Your task to perform on an android device: turn off improve location accuracy Image 0: 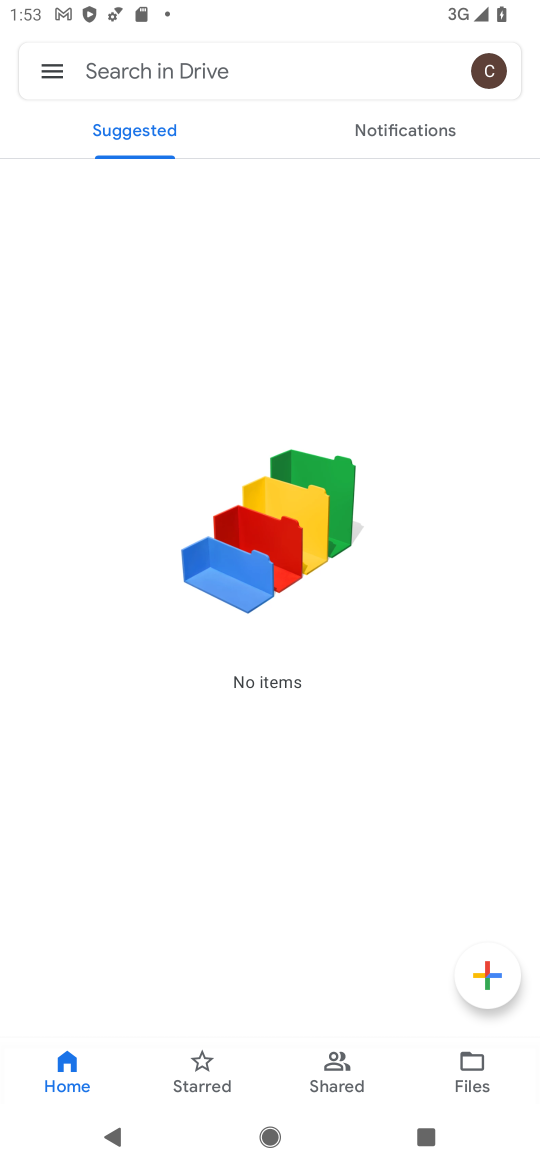
Step 0: press home button
Your task to perform on an android device: turn off improve location accuracy Image 1: 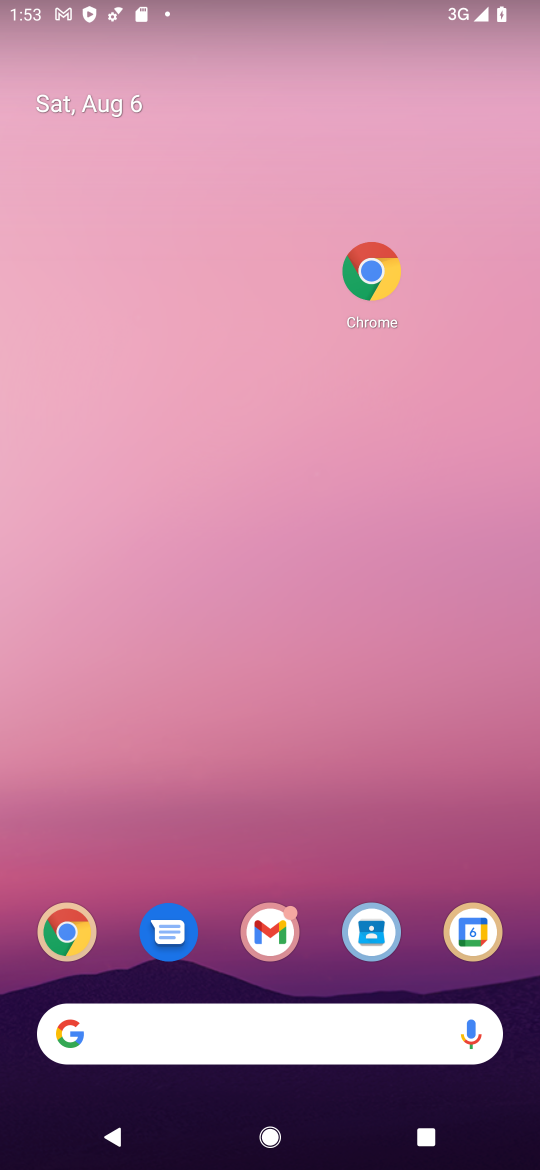
Step 1: drag from (305, 919) to (241, 70)
Your task to perform on an android device: turn off improve location accuracy Image 2: 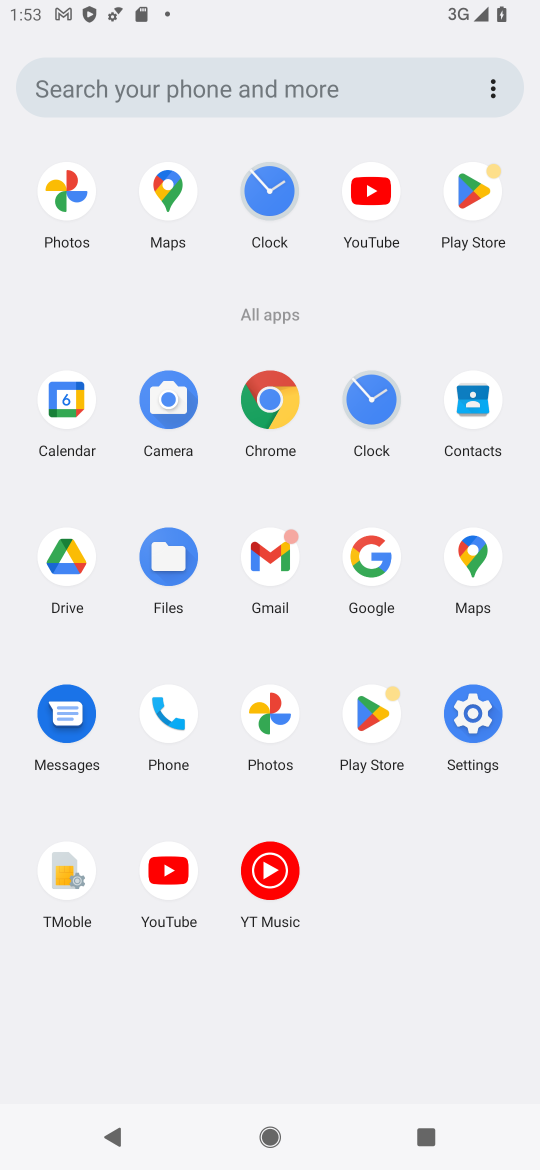
Step 2: click (484, 710)
Your task to perform on an android device: turn off improve location accuracy Image 3: 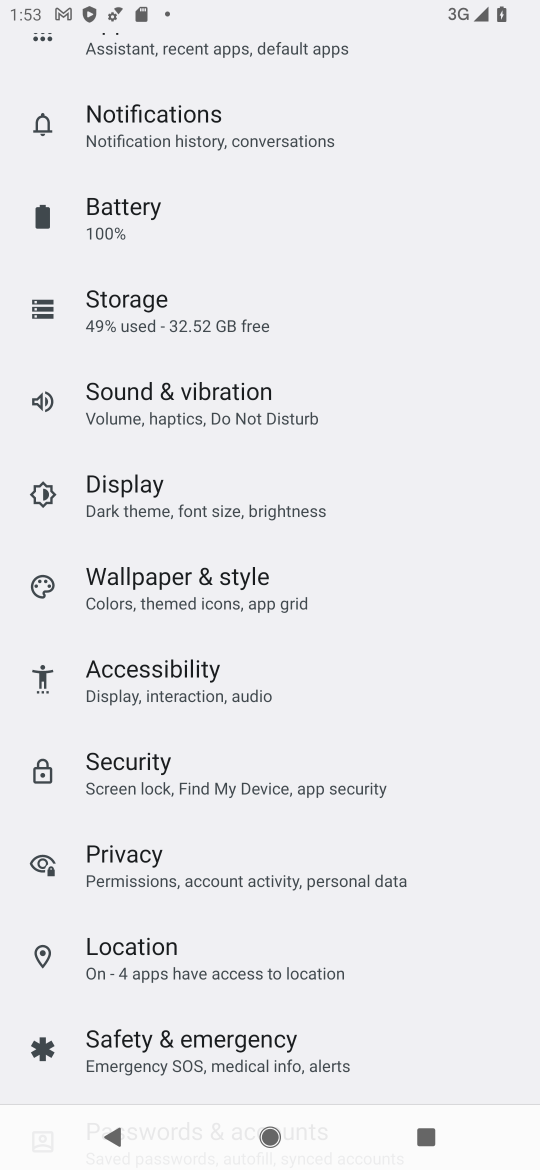
Step 3: click (181, 971)
Your task to perform on an android device: turn off improve location accuracy Image 4: 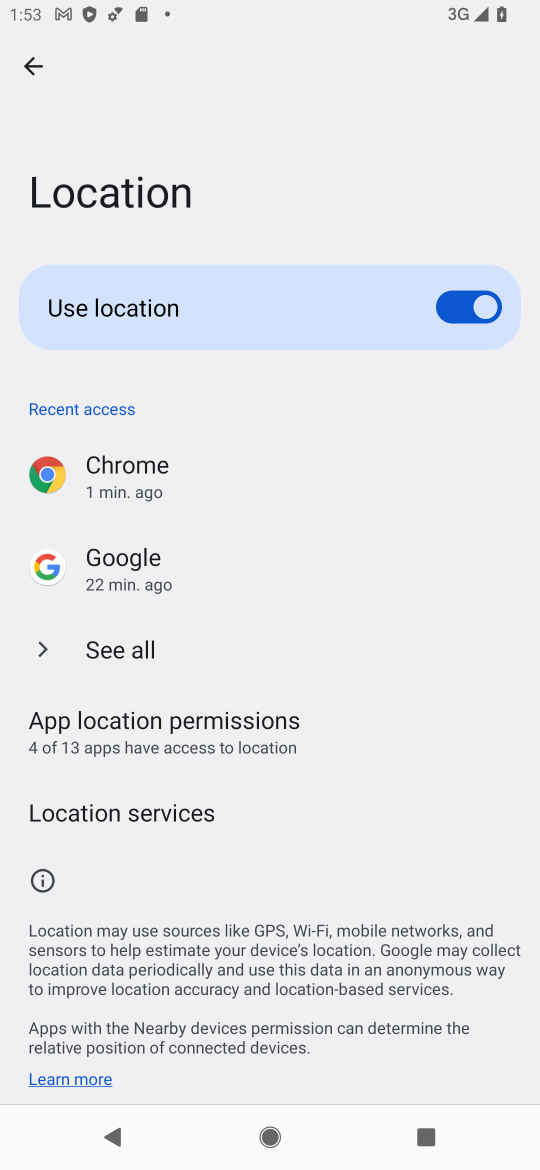
Step 4: drag from (256, 907) to (235, 564)
Your task to perform on an android device: turn off improve location accuracy Image 5: 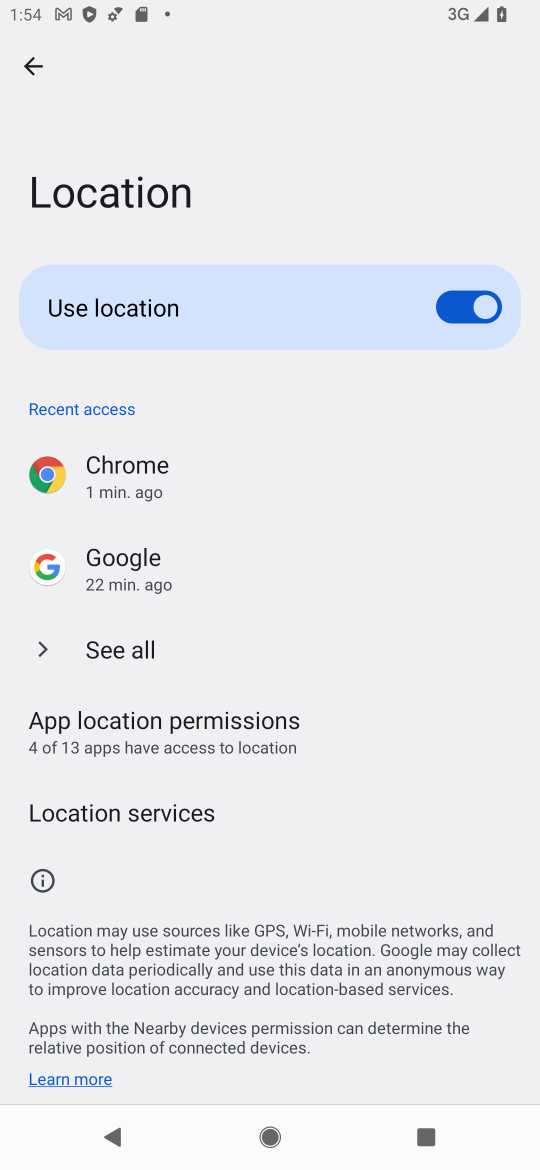
Step 5: click (165, 805)
Your task to perform on an android device: turn off improve location accuracy Image 6: 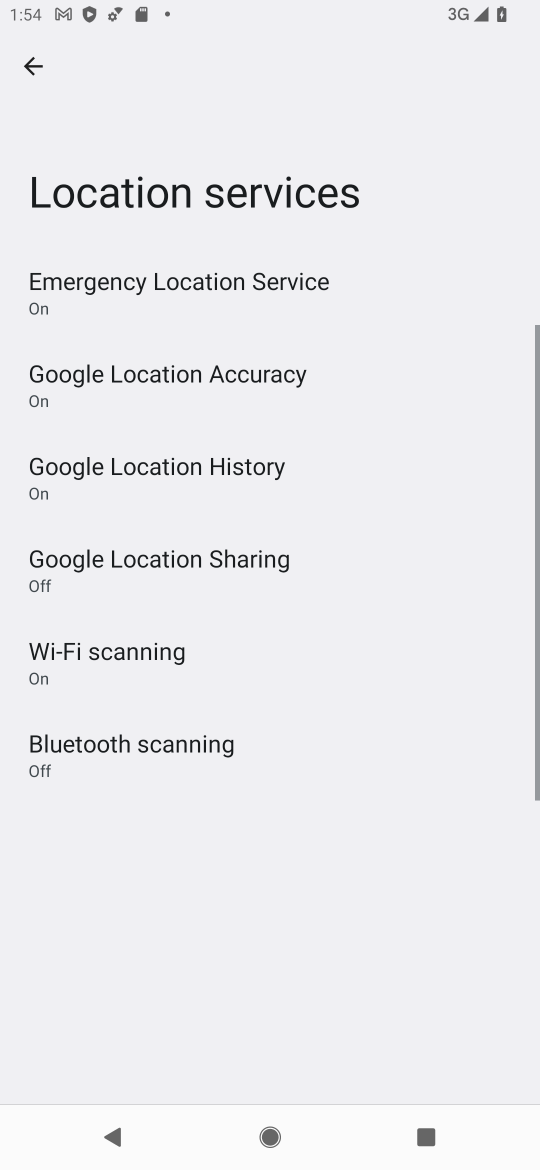
Step 6: click (234, 367)
Your task to perform on an android device: turn off improve location accuracy Image 7: 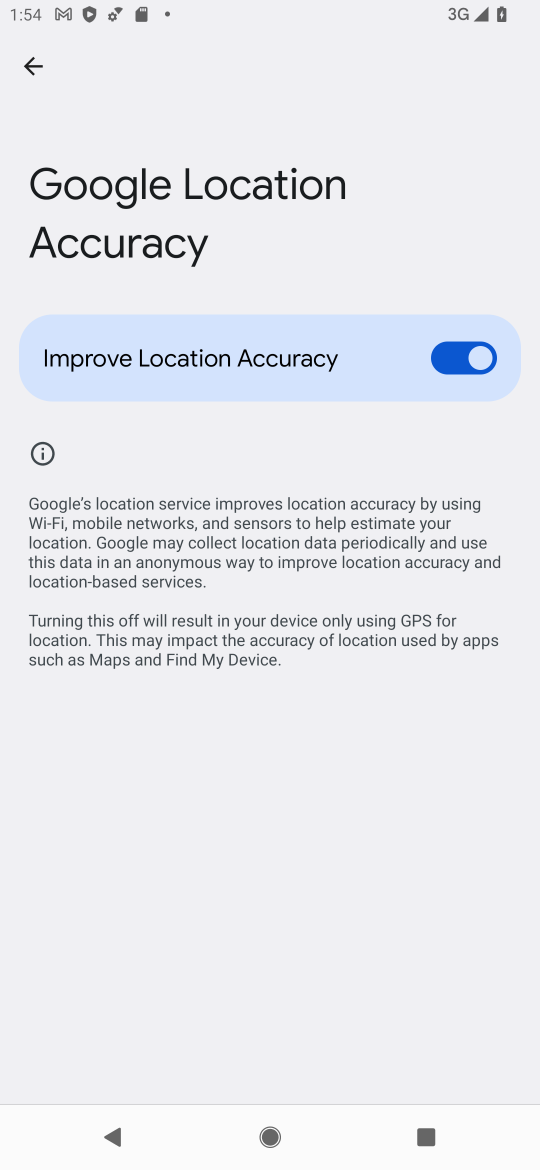
Step 7: click (365, 361)
Your task to perform on an android device: turn off improve location accuracy Image 8: 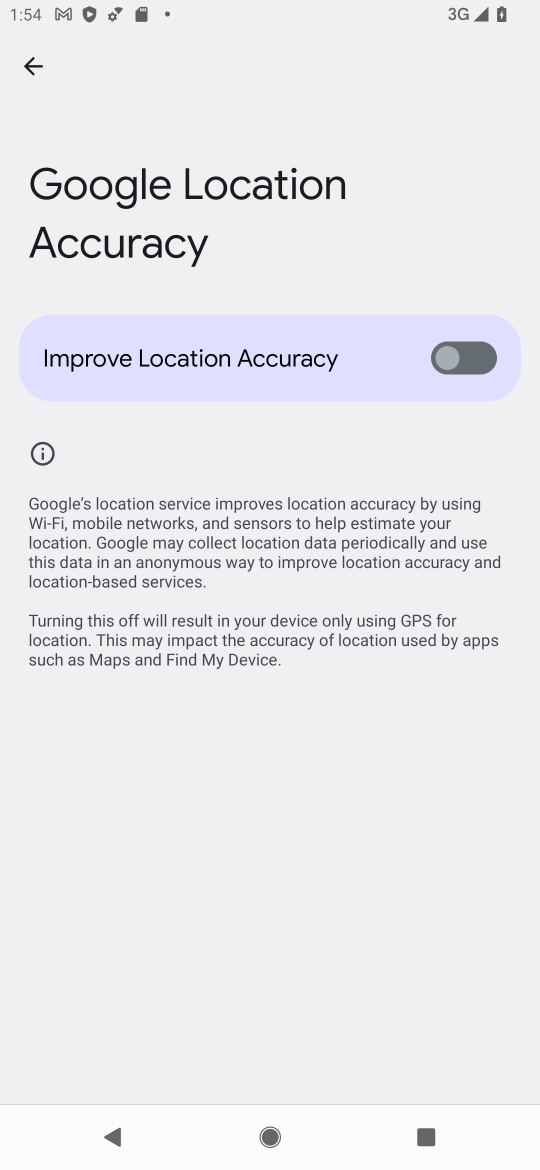
Step 8: task complete